Your task to perform on an android device: Go to privacy settings Image 0: 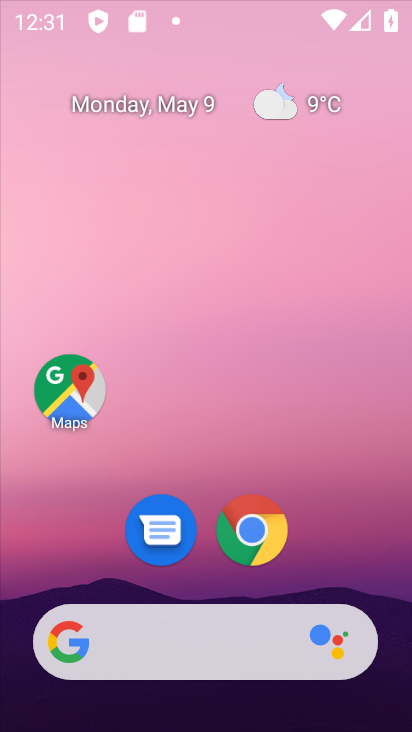
Step 0: drag from (325, 567) to (329, 186)
Your task to perform on an android device: Go to privacy settings Image 1: 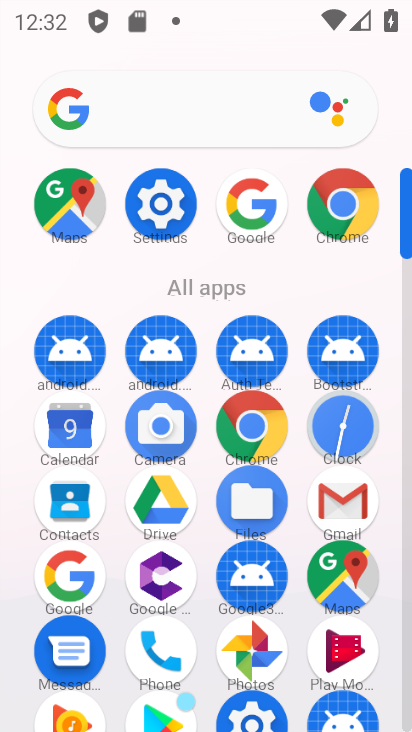
Step 1: click (351, 199)
Your task to perform on an android device: Go to privacy settings Image 2: 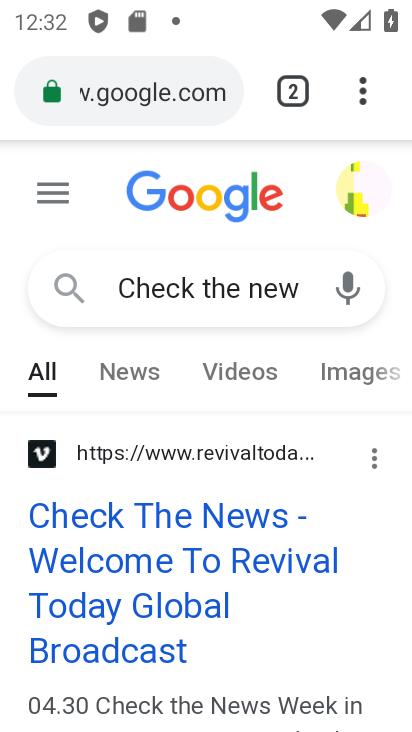
Step 2: click (344, 92)
Your task to perform on an android device: Go to privacy settings Image 3: 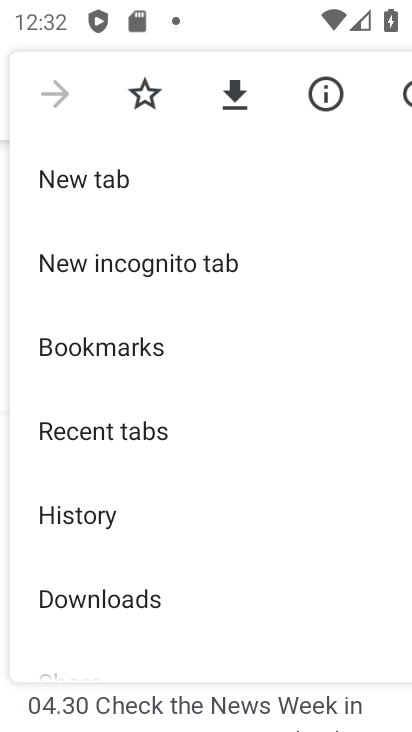
Step 3: drag from (180, 597) to (278, 151)
Your task to perform on an android device: Go to privacy settings Image 4: 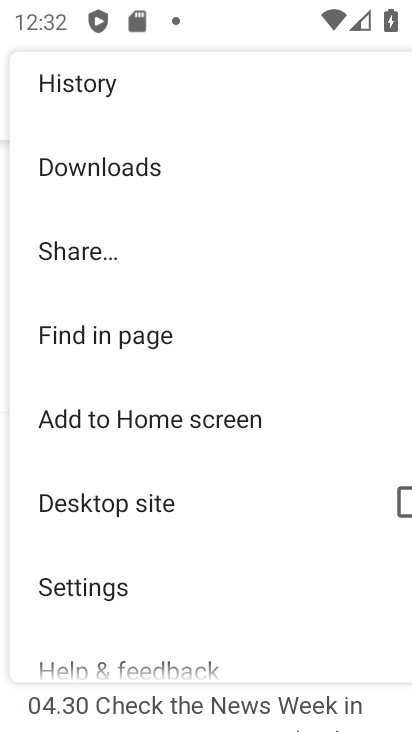
Step 4: click (138, 583)
Your task to perform on an android device: Go to privacy settings Image 5: 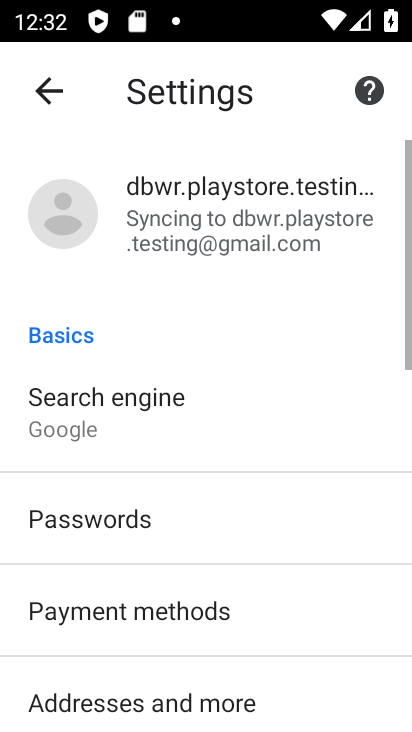
Step 5: drag from (141, 620) to (228, 206)
Your task to perform on an android device: Go to privacy settings Image 6: 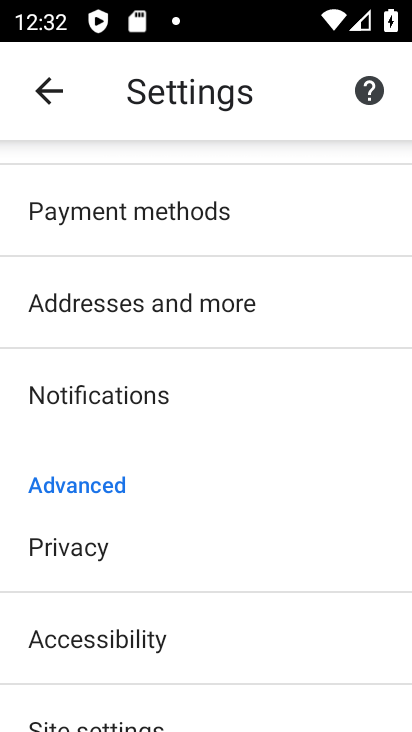
Step 6: click (48, 546)
Your task to perform on an android device: Go to privacy settings Image 7: 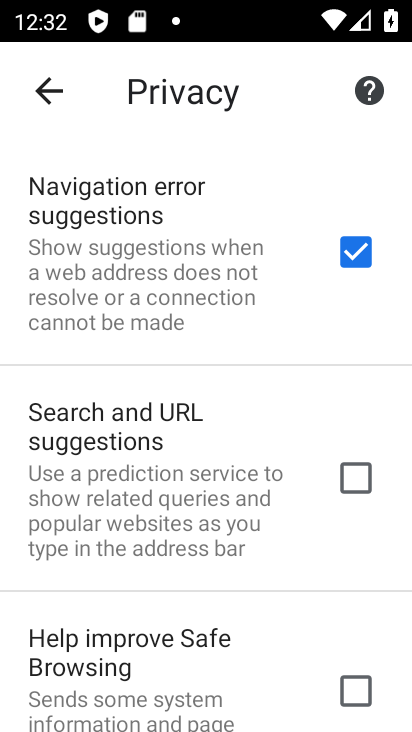
Step 7: task complete